Your task to perform on an android device: Play the last video I watched on Youtube Image 0: 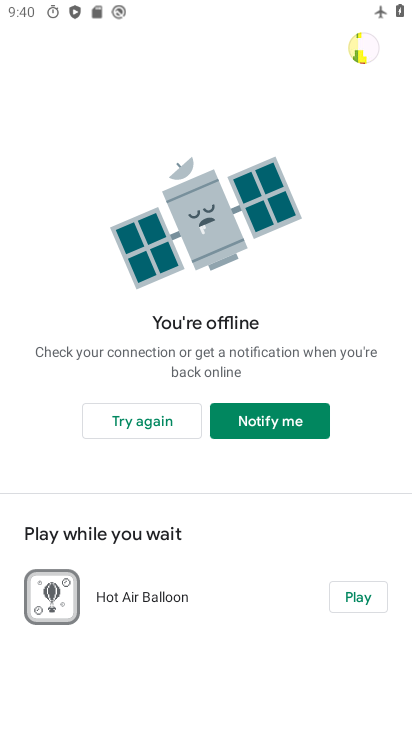
Step 0: press back button
Your task to perform on an android device: Play the last video I watched on Youtube Image 1: 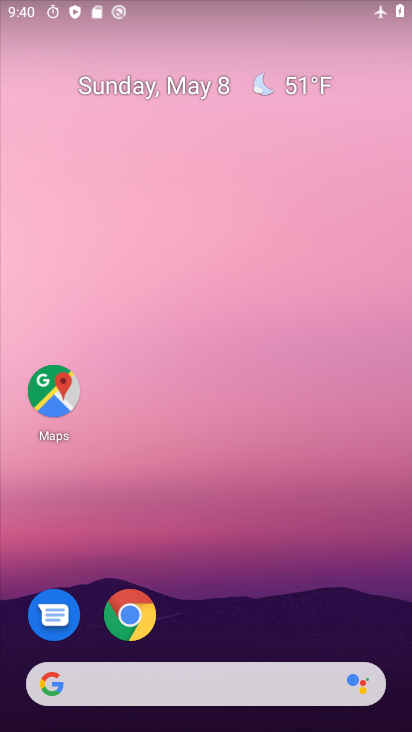
Step 1: drag from (193, 606) to (183, 226)
Your task to perform on an android device: Play the last video I watched on Youtube Image 2: 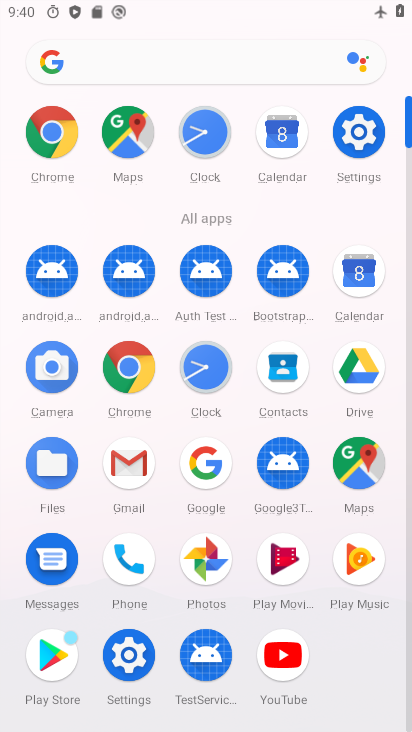
Step 2: click (305, 666)
Your task to perform on an android device: Play the last video I watched on Youtube Image 3: 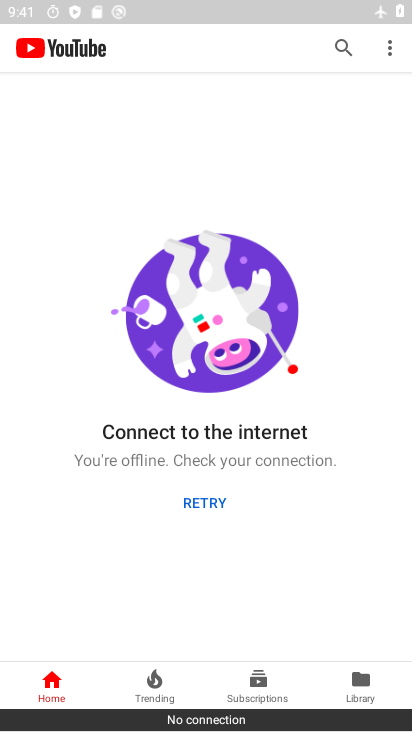
Step 3: click (388, 45)
Your task to perform on an android device: Play the last video I watched on Youtube Image 4: 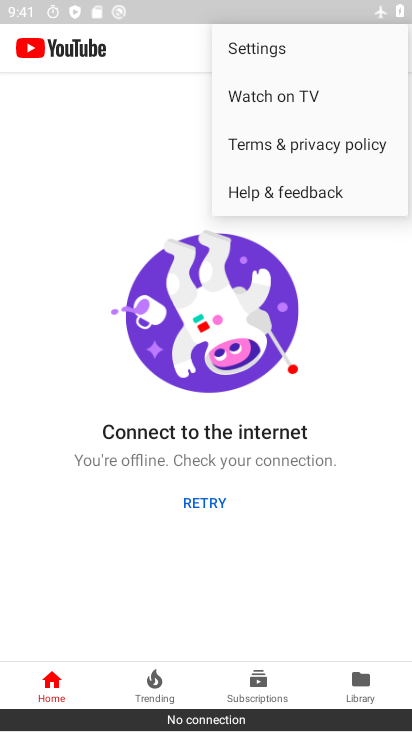
Step 4: click (123, 251)
Your task to perform on an android device: Play the last video I watched on Youtube Image 5: 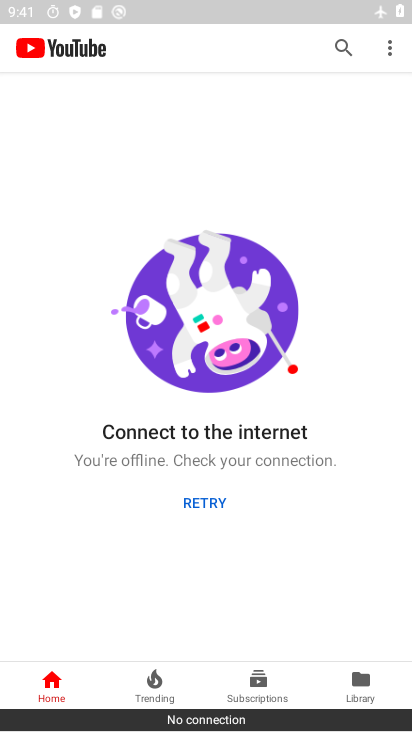
Step 5: task complete